Your task to perform on an android device: delete a single message in the gmail app Image 0: 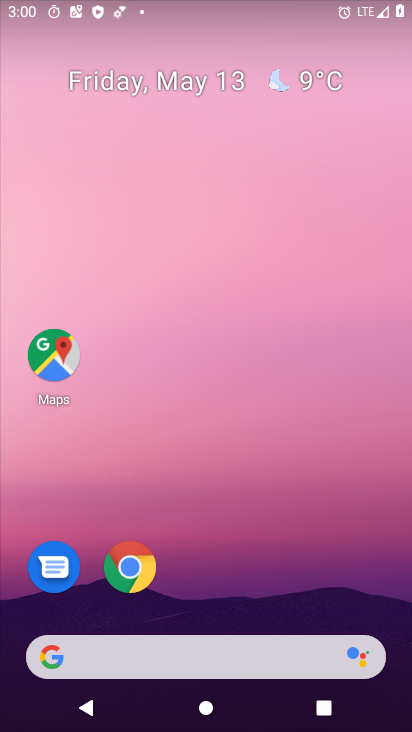
Step 0: drag from (207, 604) to (239, 107)
Your task to perform on an android device: delete a single message in the gmail app Image 1: 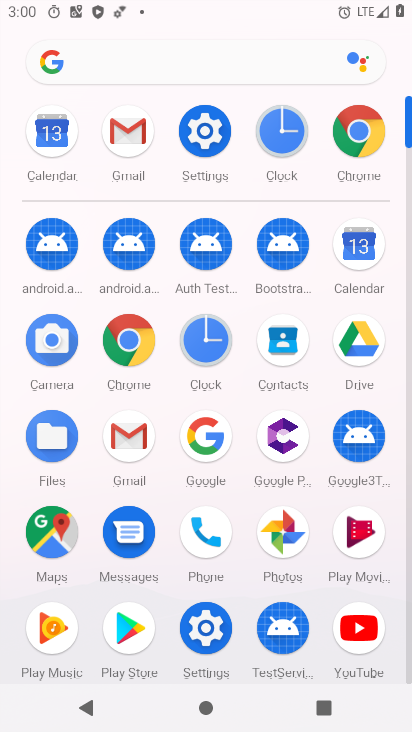
Step 1: click (124, 444)
Your task to perform on an android device: delete a single message in the gmail app Image 2: 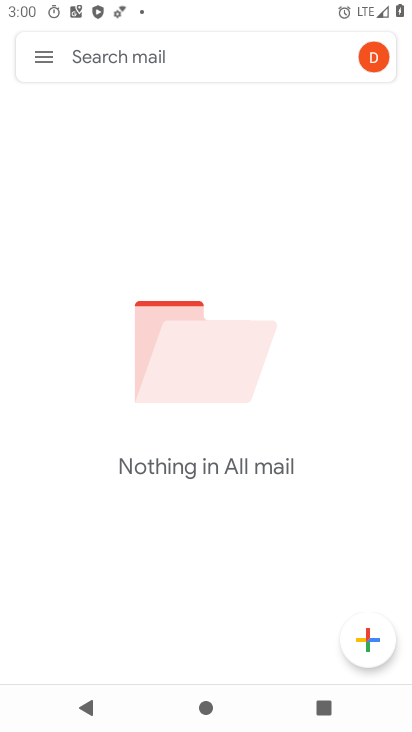
Step 2: click (29, 57)
Your task to perform on an android device: delete a single message in the gmail app Image 3: 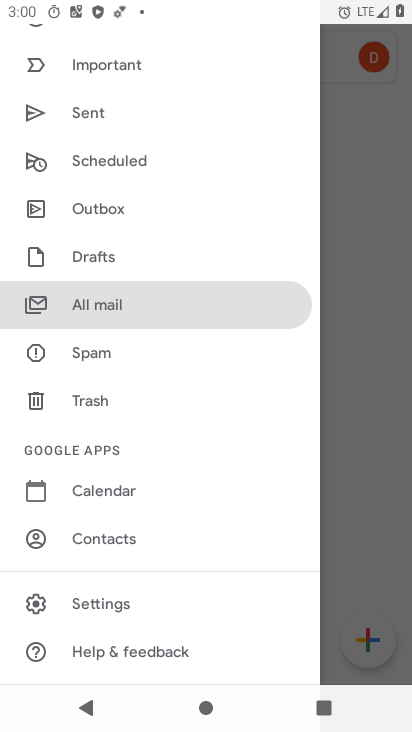
Step 3: task complete